Your task to perform on an android device: toggle notification dots Image 0: 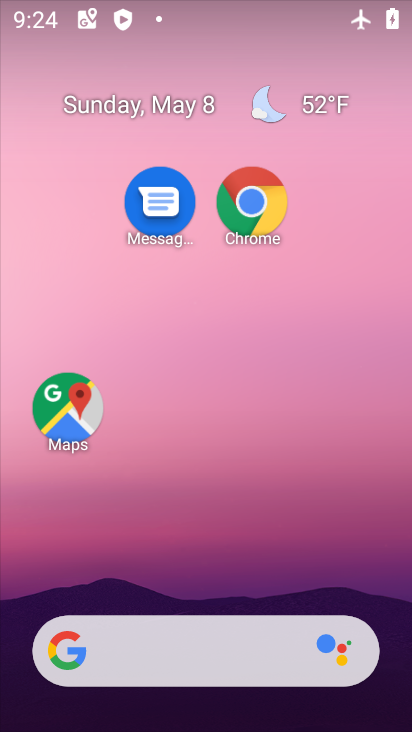
Step 0: drag from (206, 591) to (216, 0)
Your task to perform on an android device: toggle notification dots Image 1: 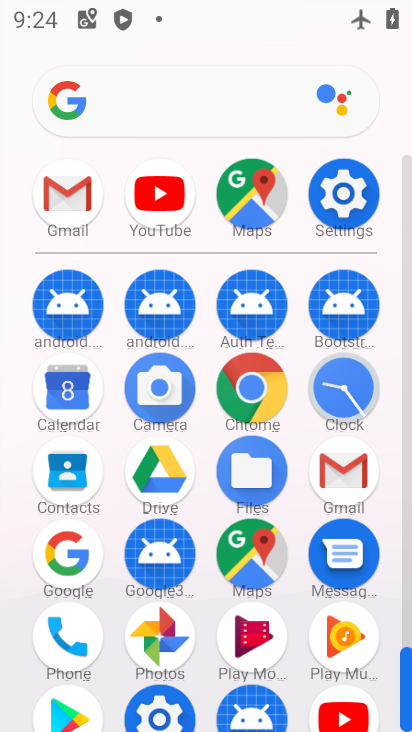
Step 1: click (359, 185)
Your task to perform on an android device: toggle notification dots Image 2: 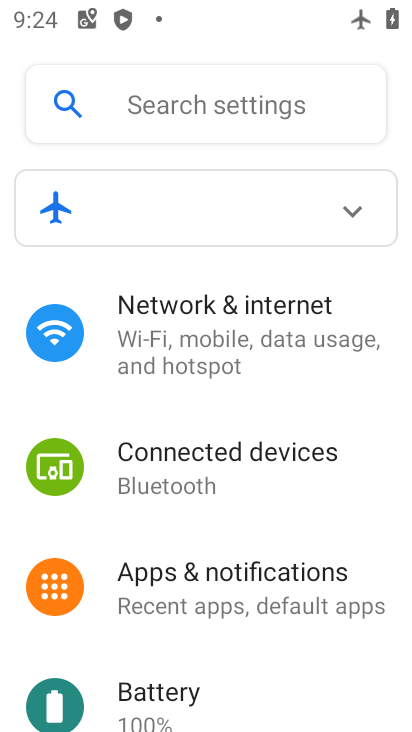
Step 2: click (220, 587)
Your task to perform on an android device: toggle notification dots Image 3: 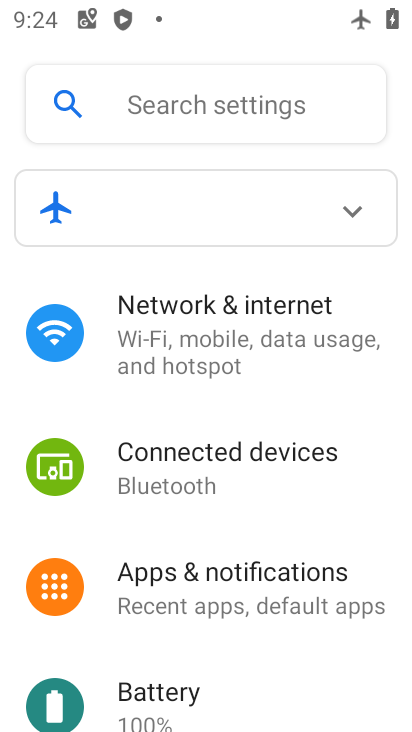
Step 3: drag from (221, 588) to (186, 253)
Your task to perform on an android device: toggle notification dots Image 4: 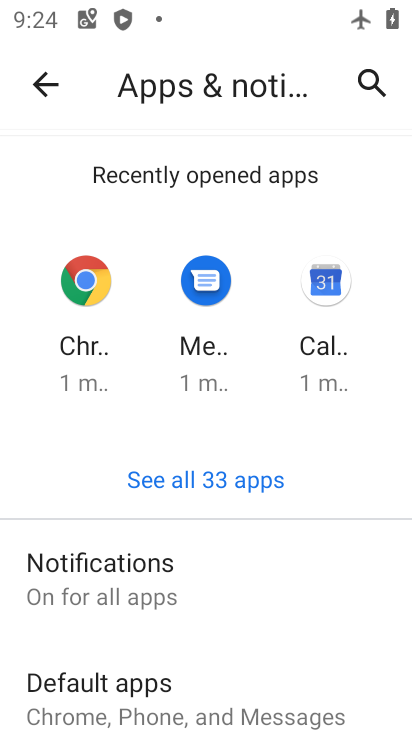
Step 4: click (137, 557)
Your task to perform on an android device: toggle notification dots Image 5: 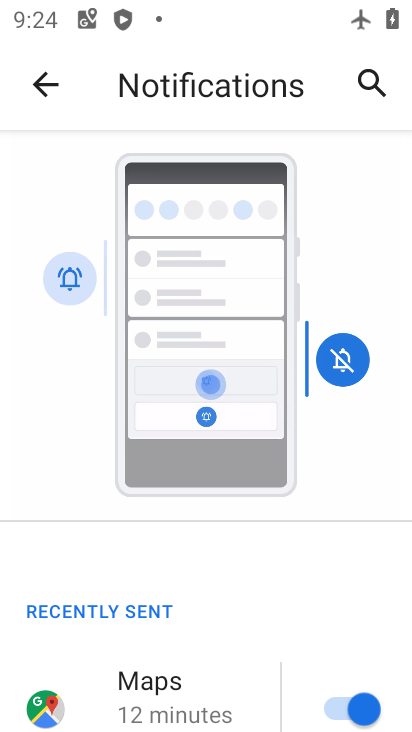
Step 5: drag from (178, 653) to (123, 66)
Your task to perform on an android device: toggle notification dots Image 6: 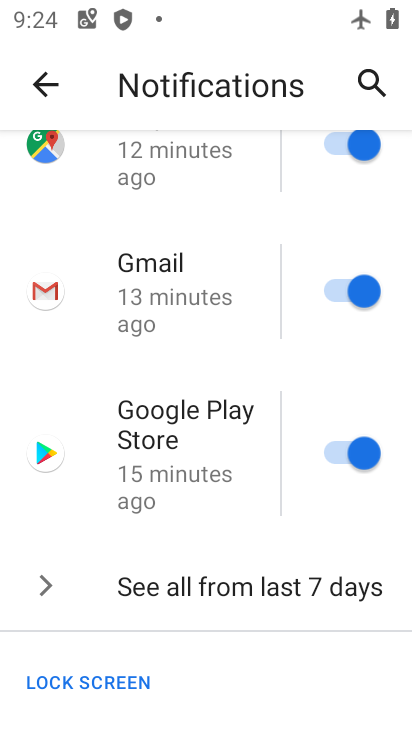
Step 6: drag from (155, 639) to (100, 0)
Your task to perform on an android device: toggle notification dots Image 7: 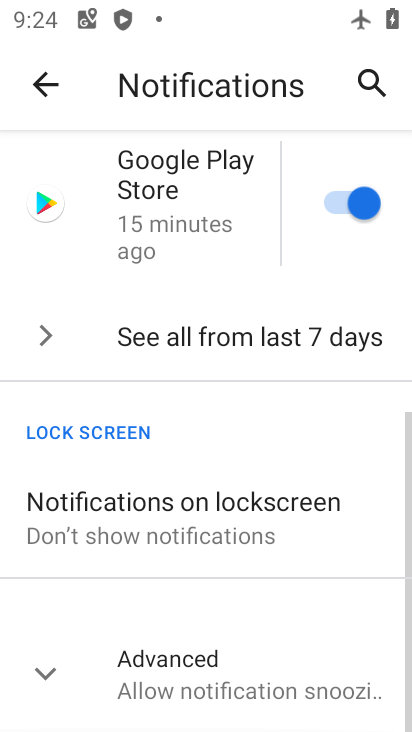
Step 7: click (138, 671)
Your task to perform on an android device: toggle notification dots Image 8: 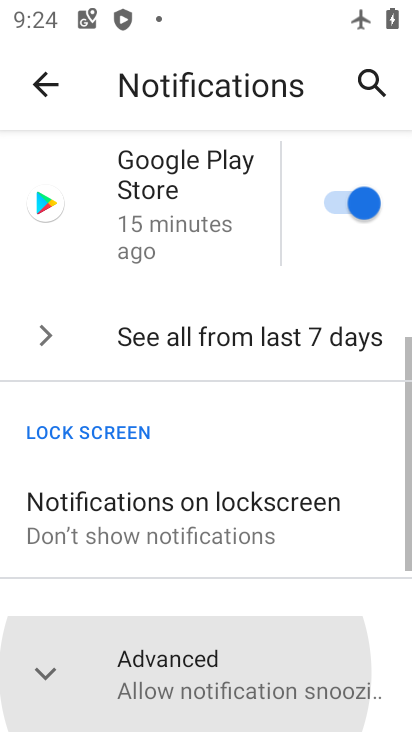
Step 8: drag from (138, 671) to (71, 33)
Your task to perform on an android device: toggle notification dots Image 9: 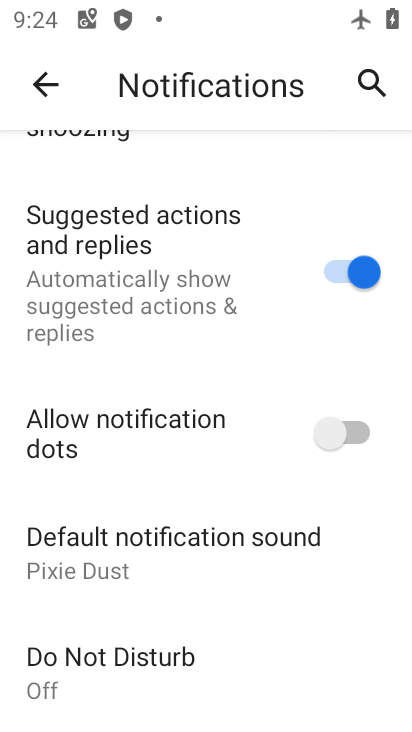
Step 9: click (329, 451)
Your task to perform on an android device: toggle notification dots Image 10: 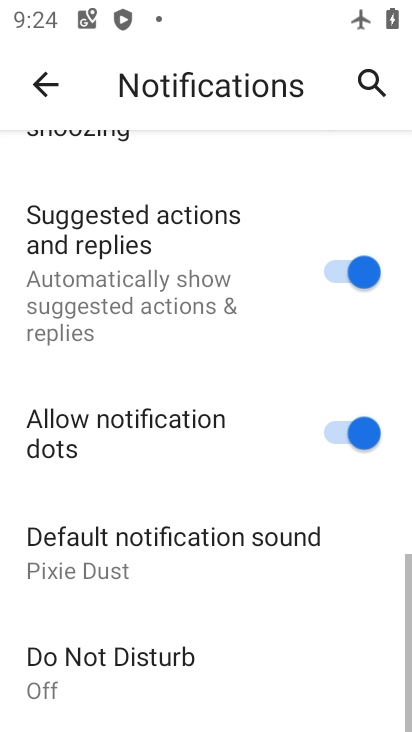
Step 10: task complete